Your task to perform on an android device: Go to ESPN.com Image 0: 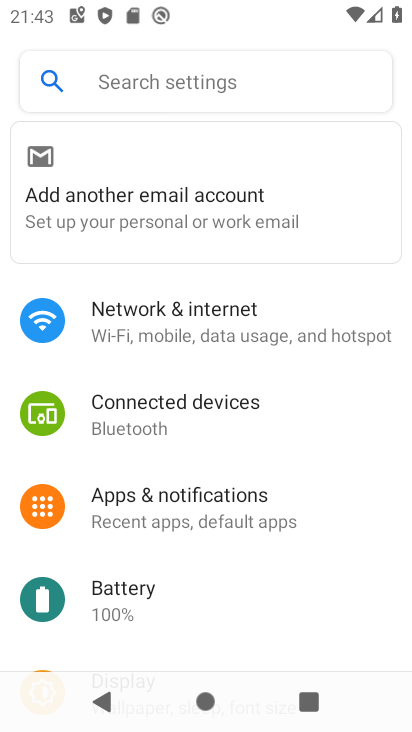
Step 0: press home button
Your task to perform on an android device: Go to ESPN.com Image 1: 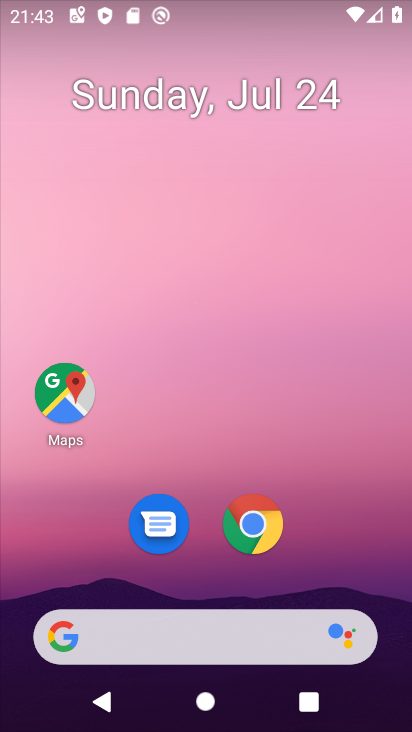
Step 1: click (258, 528)
Your task to perform on an android device: Go to ESPN.com Image 2: 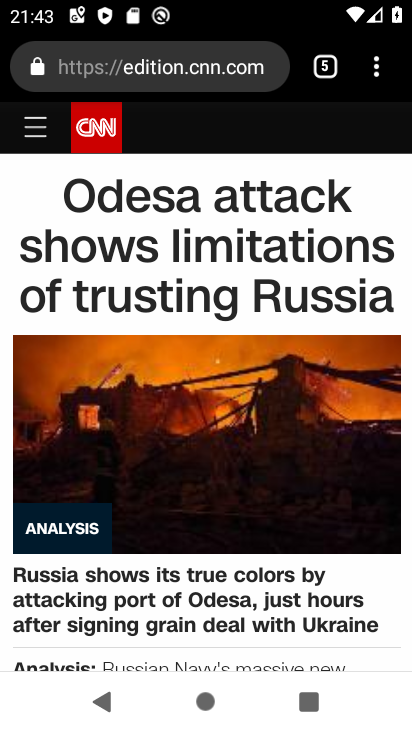
Step 2: drag from (373, 56) to (239, 131)
Your task to perform on an android device: Go to ESPN.com Image 3: 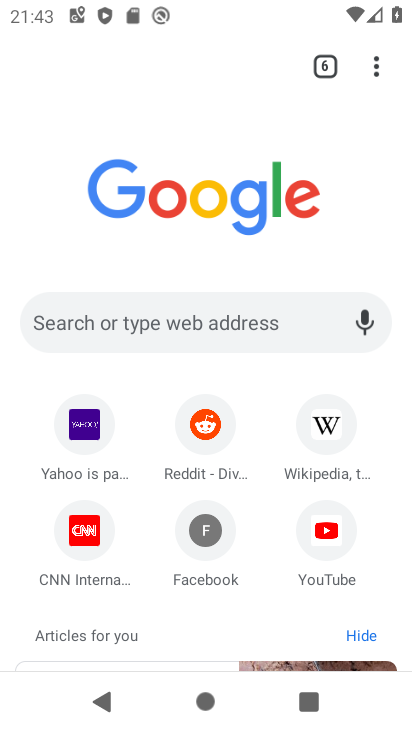
Step 3: drag from (153, 578) to (279, 455)
Your task to perform on an android device: Go to ESPN.com Image 4: 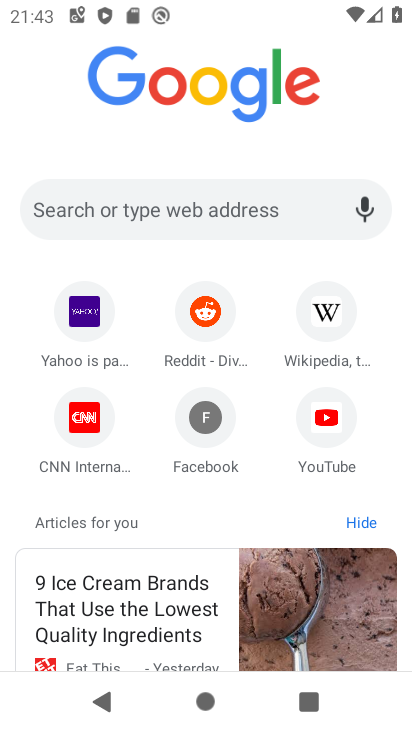
Step 4: click (203, 203)
Your task to perform on an android device: Go to ESPN.com Image 5: 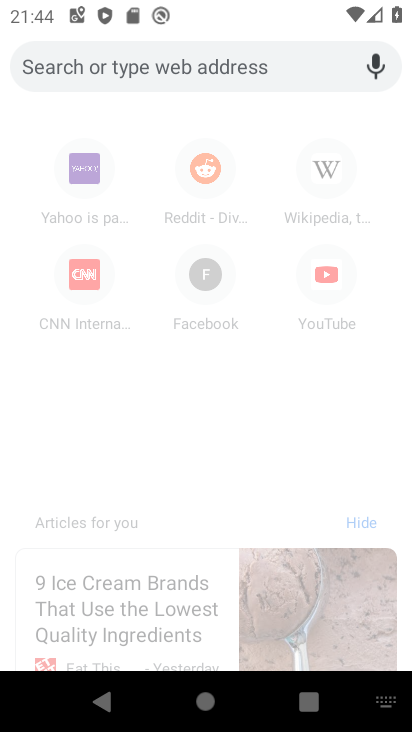
Step 5: type "espn.com"
Your task to perform on an android device: Go to ESPN.com Image 6: 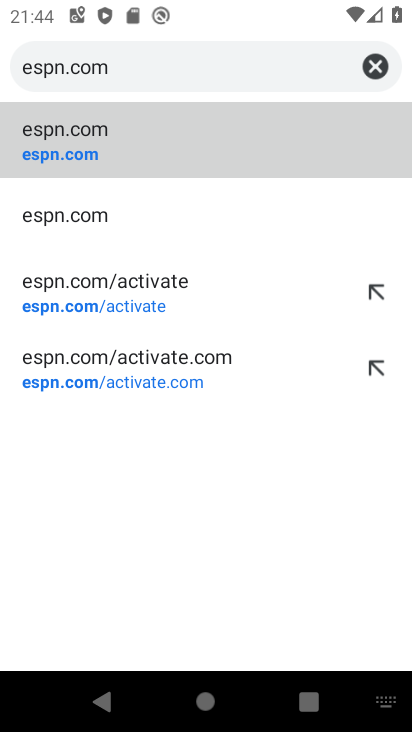
Step 6: click (99, 128)
Your task to perform on an android device: Go to ESPN.com Image 7: 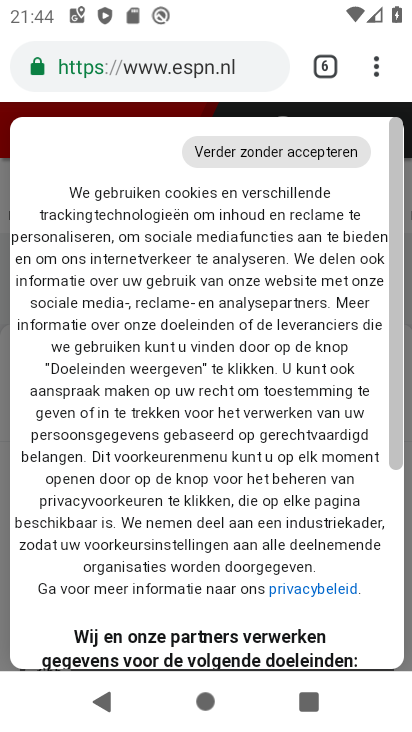
Step 7: drag from (356, 597) to (408, 275)
Your task to perform on an android device: Go to ESPN.com Image 8: 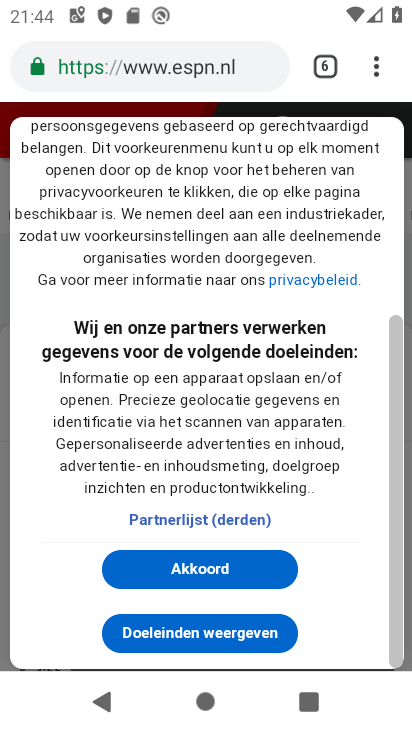
Step 8: click (224, 571)
Your task to perform on an android device: Go to ESPN.com Image 9: 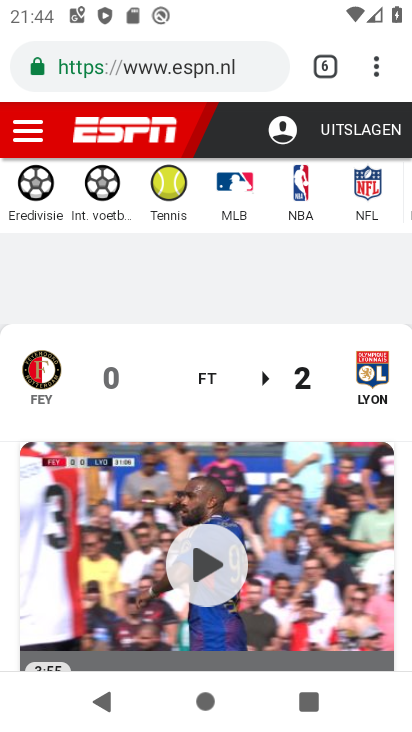
Step 9: task complete